Your task to perform on an android device: Open Google Chrome Image 0: 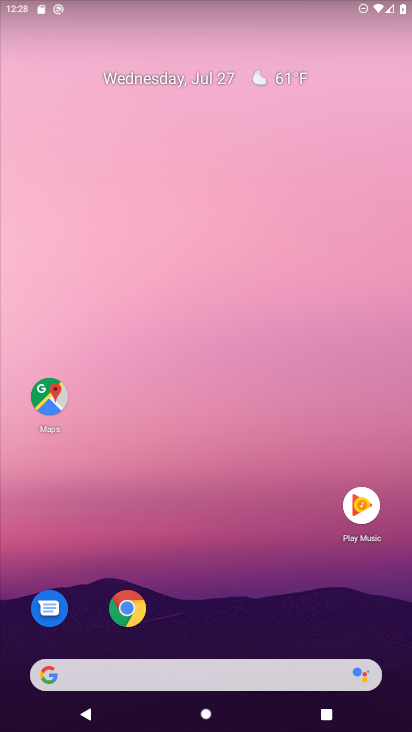
Step 0: press home button
Your task to perform on an android device: Open Google Chrome Image 1: 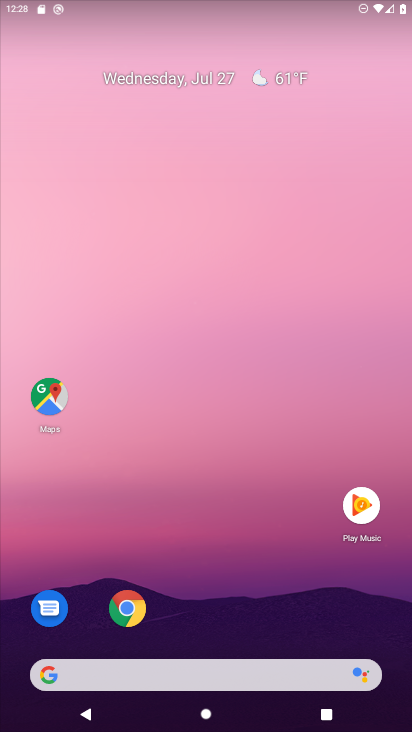
Step 1: drag from (288, 592) to (311, 240)
Your task to perform on an android device: Open Google Chrome Image 2: 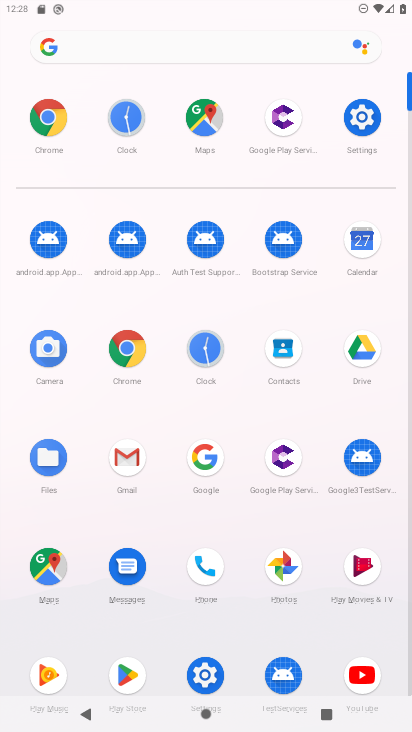
Step 2: click (132, 349)
Your task to perform on an android device: Open Google Chrome Image 3: 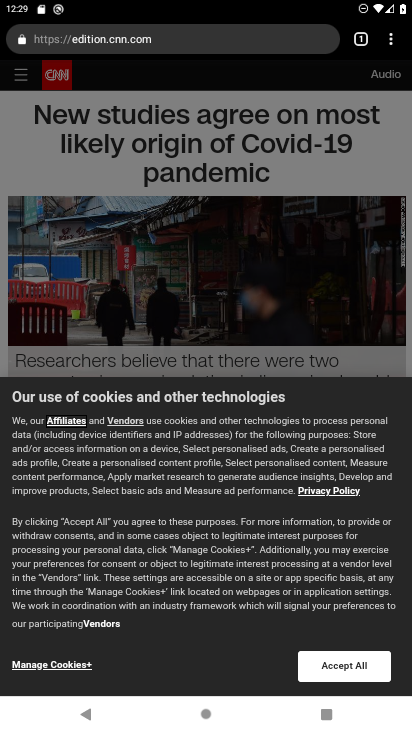
Step 3: task complete